Your task to perform on an android device: Open Reddit.com Image 0: 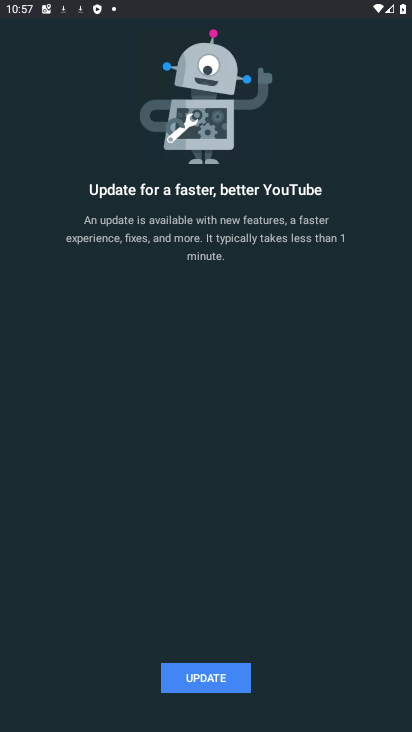
Step 0: press home button
Your task to perform on an android device: Open Reddit.com Image 1: 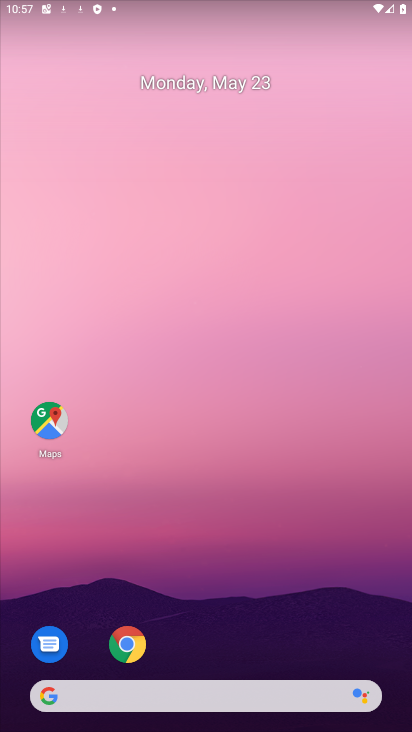
Step 1: drag from (270, 719) to (252, 190)
Your task to perform on an android device: Open Reddit.com Image 2: 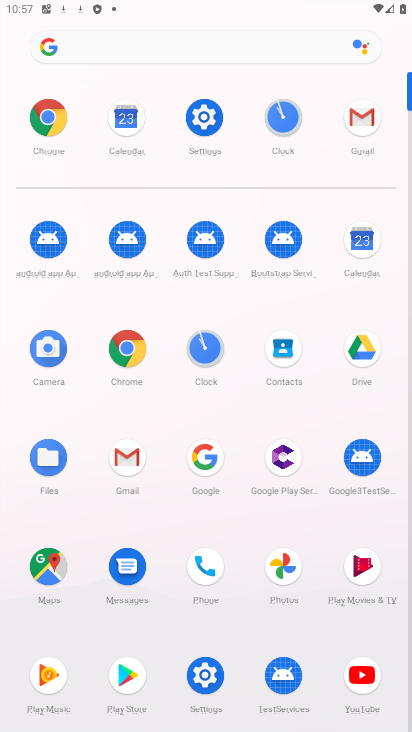
Step 2: click (58, 136)
Your task to perform on an android device: Open Reddit.com Image 3: 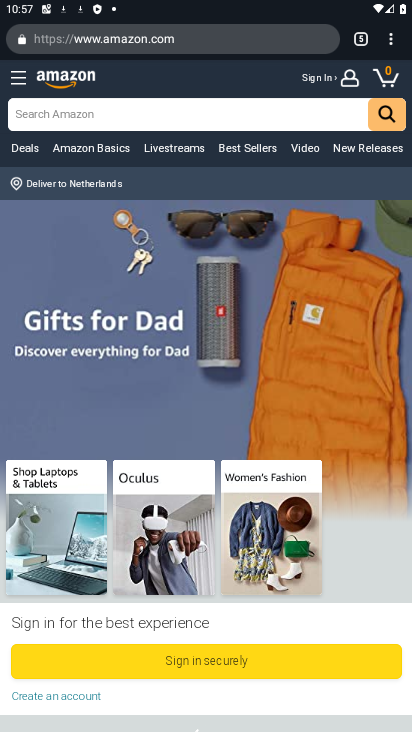
Step 3: click (139, 33)
Your task to perform on an android device: Open Reddit.com Image 4: 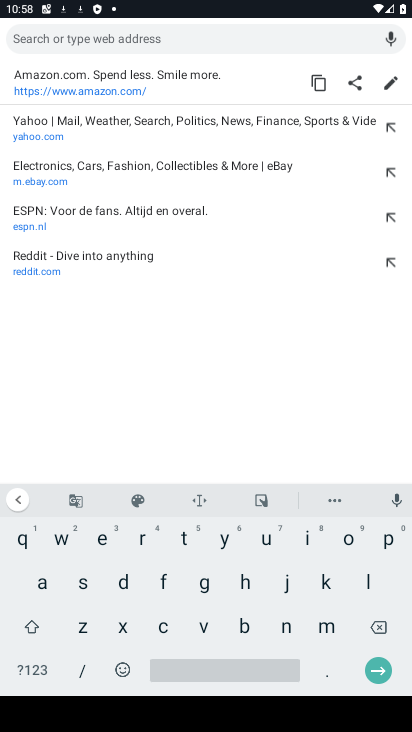
Step 4: click (136, 539)
Your task to perform on an android device: Open Reddit.com Image 5: 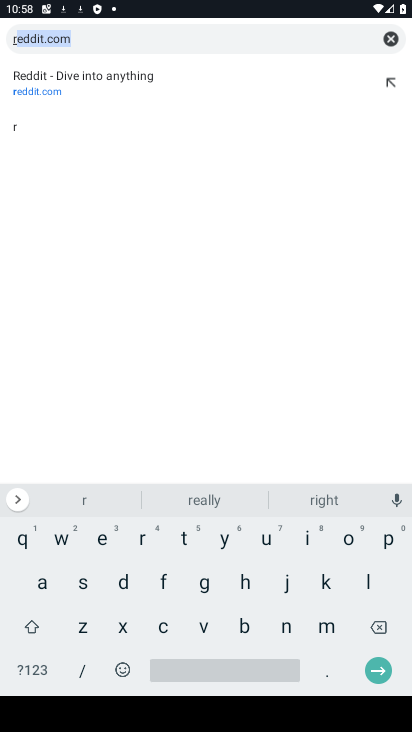
Step 5: click (102, 536)
Your task to perform on an android device: Open Reddit.com Image 6: 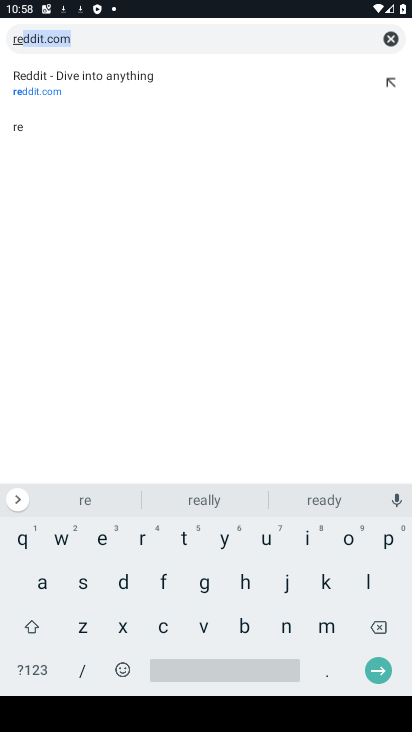
Step 6: click (121, 46)
Your task to perform on an android device: Open Reddit.com Image 7: 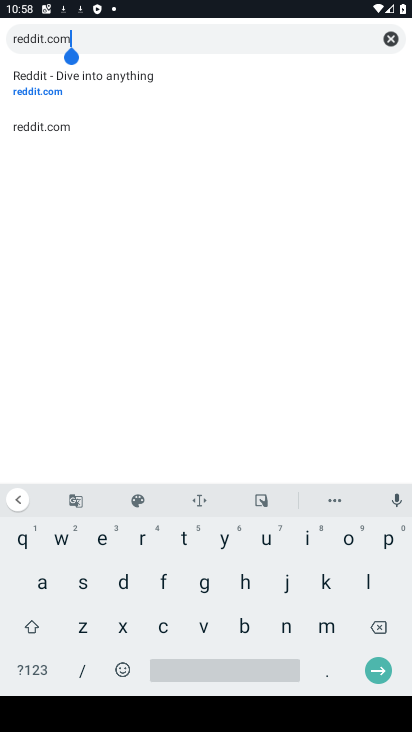
Step 7: task complete